Your task to perform on an android device: Play the new Demi Lovato video on YouTube Image 0: 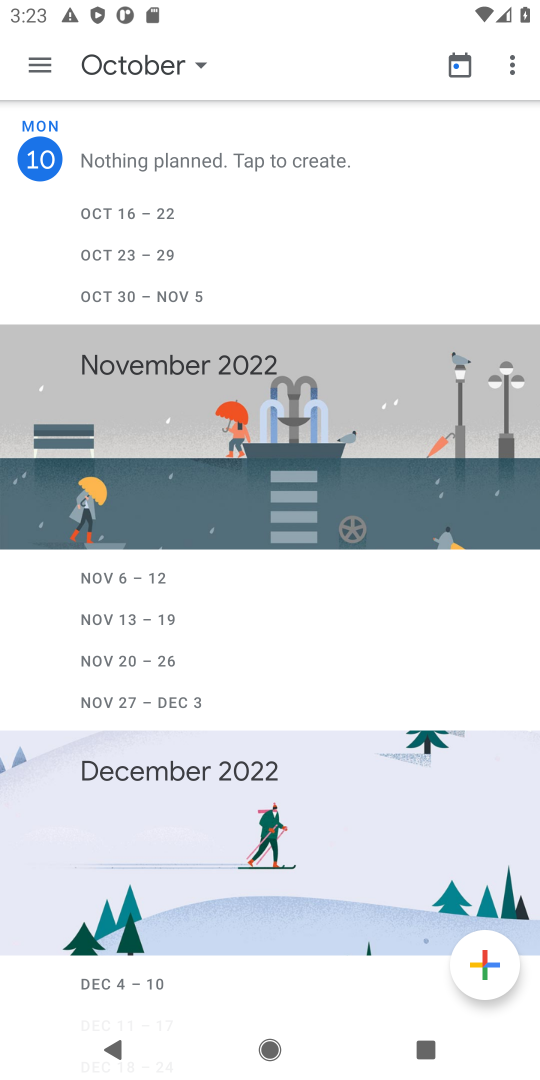
Step 0: press home button
Your task to perform on an android device: Play the new Demi Lovato video on YouTube Image 1: 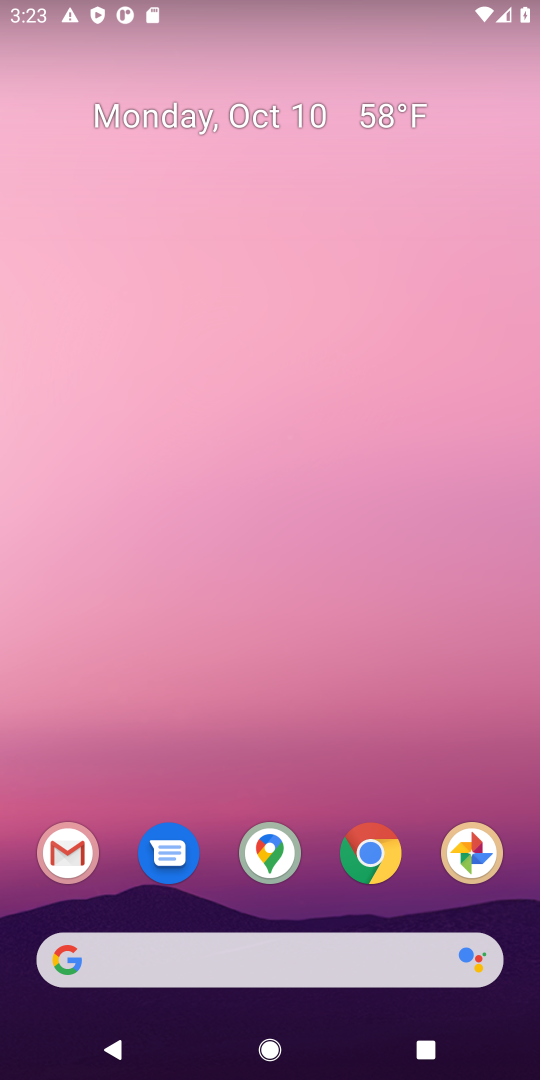
Step 1: drag from (334, 837) to (447, 28)
Your task to perform on an android device: Play the new Demi Lovato video on YouTube Image 2: 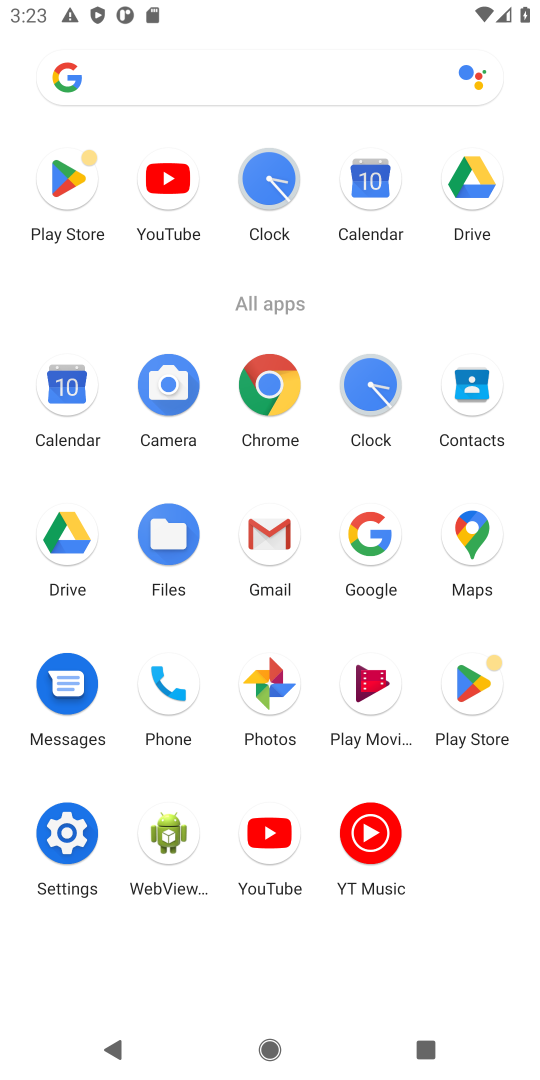
Step 2: click (150, 173)
Your task to perform on an android device: Play the new Demi Lovato video on YouTube Image 3: 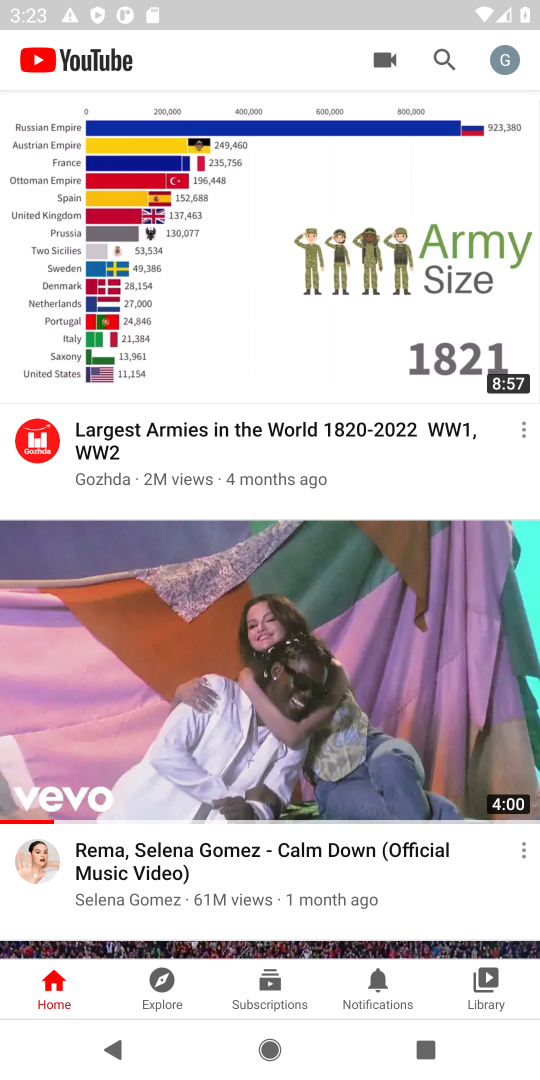
Step 3: click (441, 54)
Your task to perform on an android device: Play the new Demi Lovato video on YouTube Image 4: 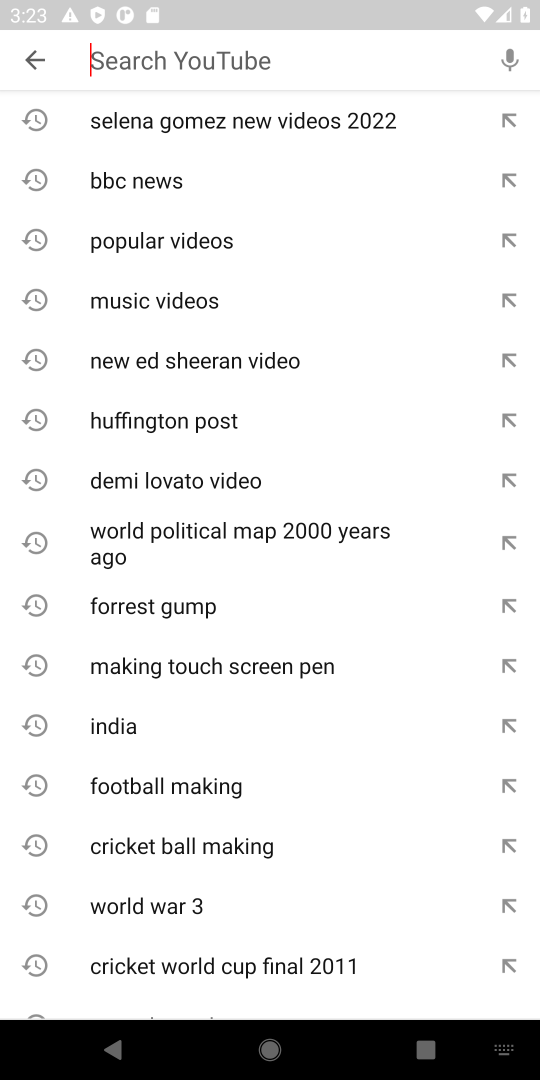
Step 4: click (320, 69)
Your task to perform on an android device: Play the new Demi Lovato video on YouTube Image 5: 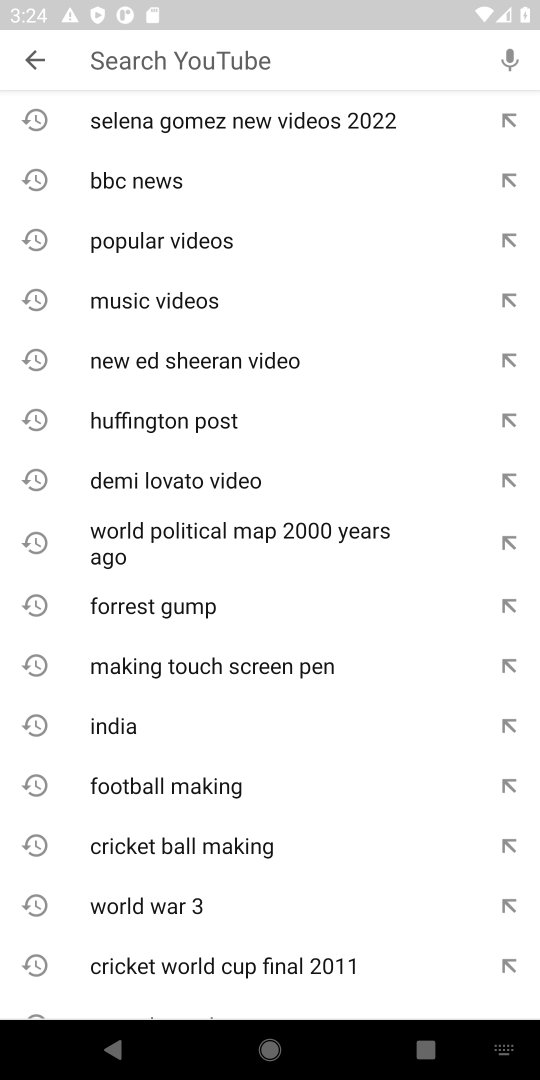
Step 5: type "new Demi Lovato video"
Your task to perform on an android device: Play the new Demi Lovato video on YouTube Image 6: 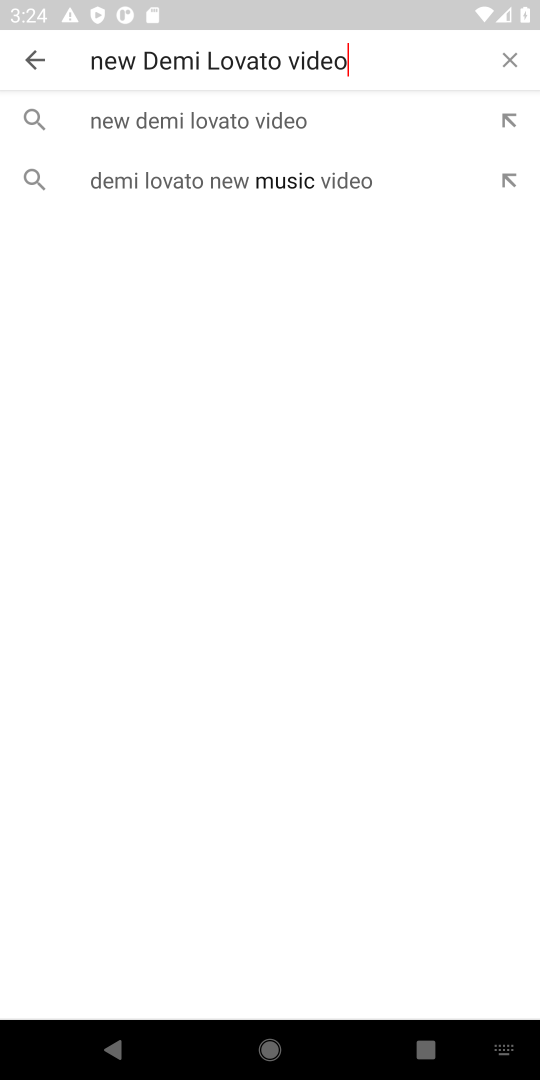
Step 6: click (223, 128)
Your task to perform on an android device: Play the new Demi Lovato video on YouTube Image 7: 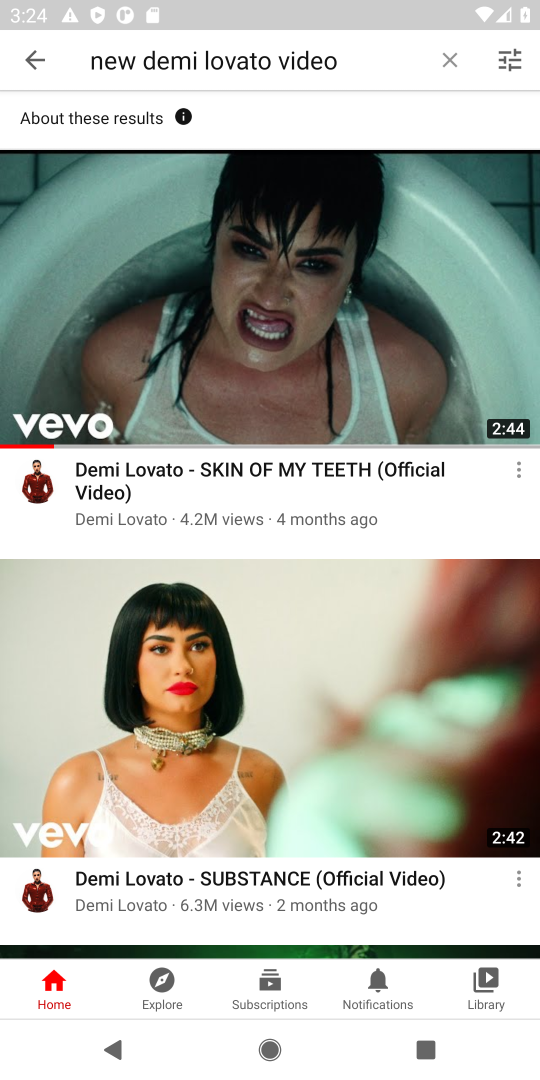
Step 7: drag from (237, 695) to (350, 289)
Your task to perform on an android device: Play the new Demi Lovato video on YouTube Image 8: 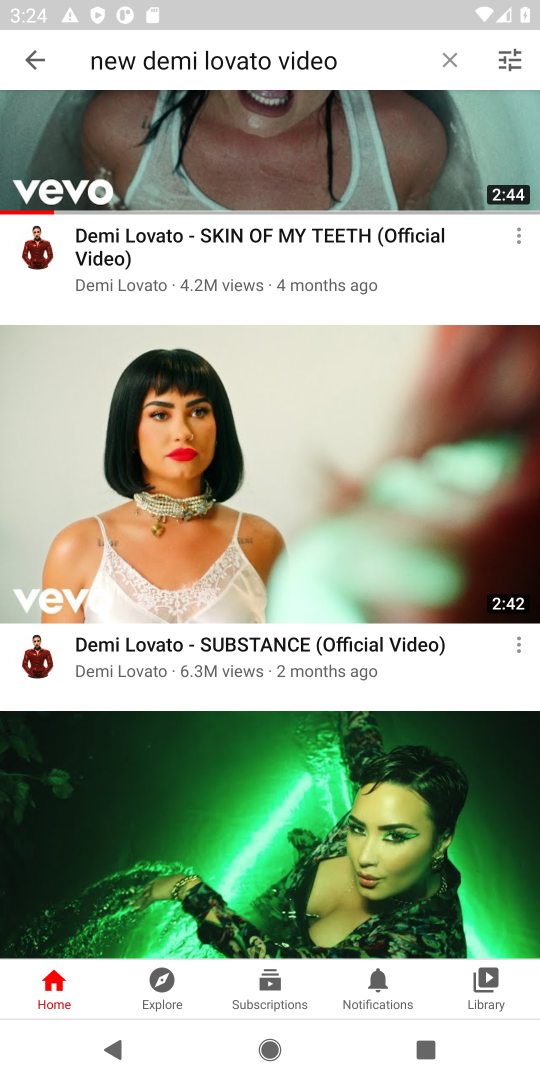
Step 8: drag from (325, 603) to (361, 196)
Your task to perform on an android device: Play the new Demi Lovato video on YouTube Image 9: 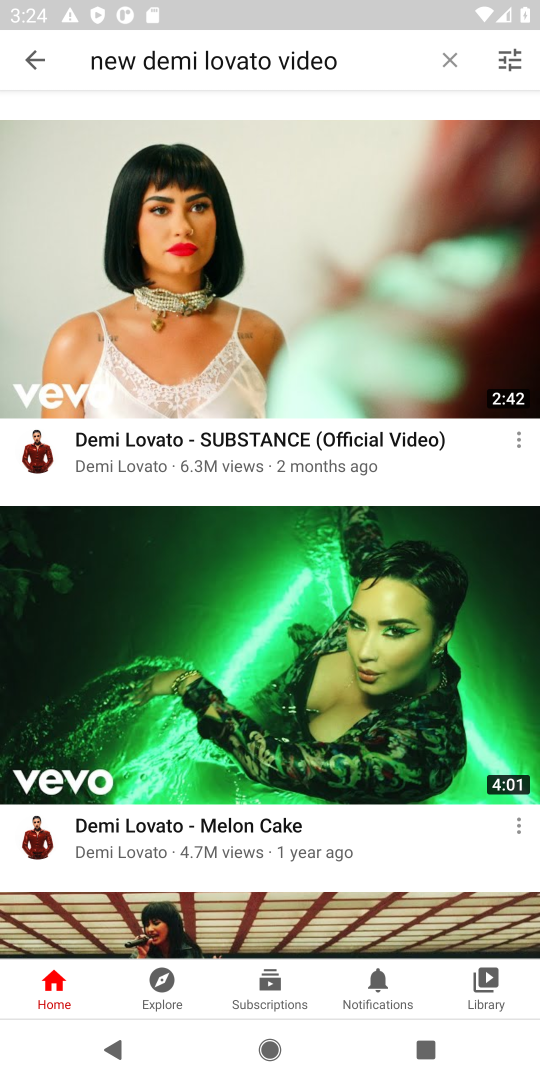
Step 9: click (299, 287)
Your task to perform on an android device: Play the new Demi Lovato video on YouTube Image 10: 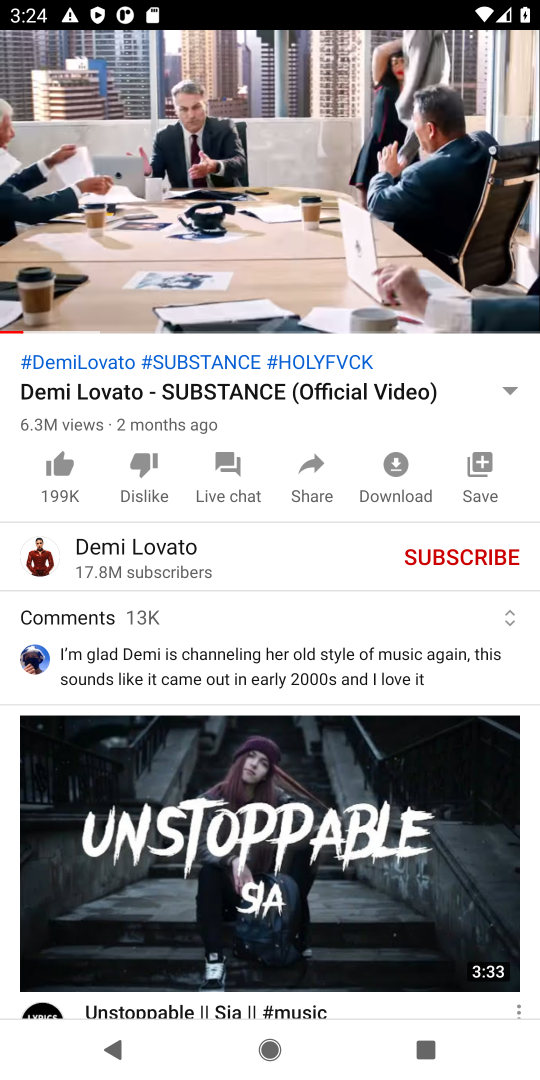
Step 10: task complete